Your task to perform on an android device: Turn on the flashlight Image 0: 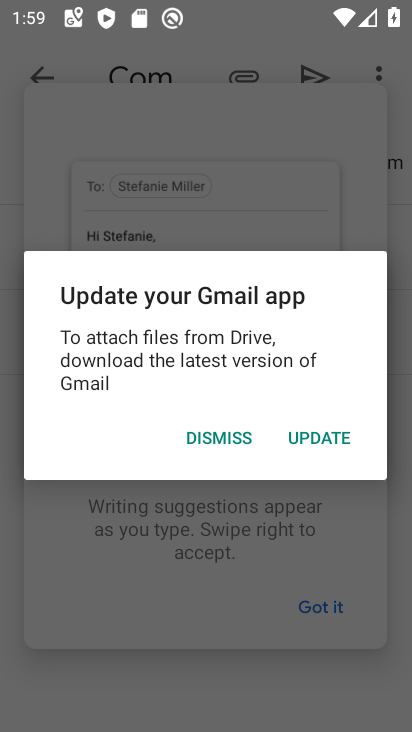
Step 0: press home button
Your task to perform on an android device: Turn on the flashlight Image 1: 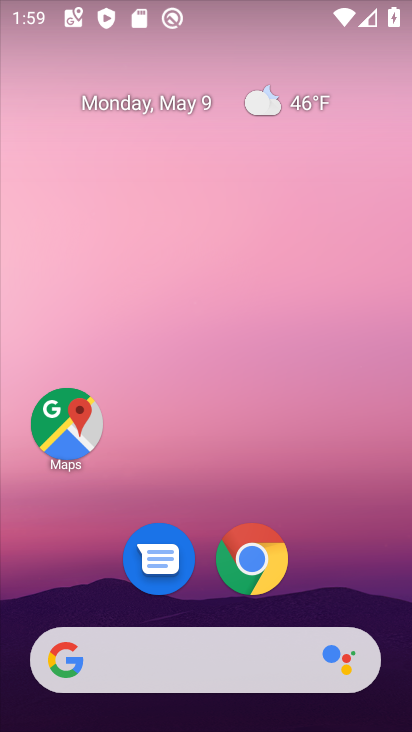
Step 1: drag from (389, 570) to (325, 166)
Your task to perform on an android device: Turn on the flashlight Image 2: 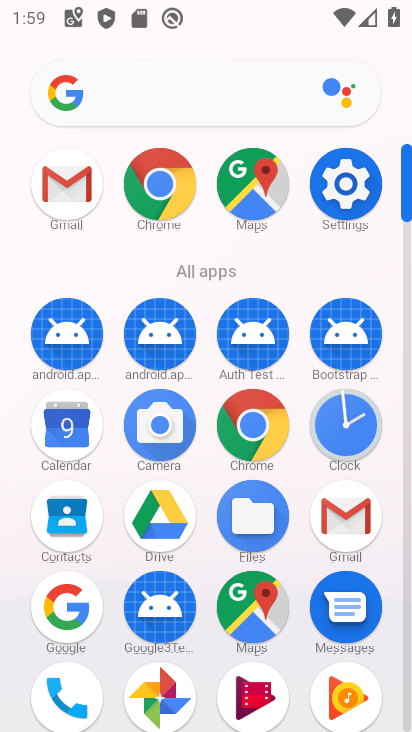
Step 2: click (342, 161)
Your task to perform on an android device: Turn on the flashlight Image 3: 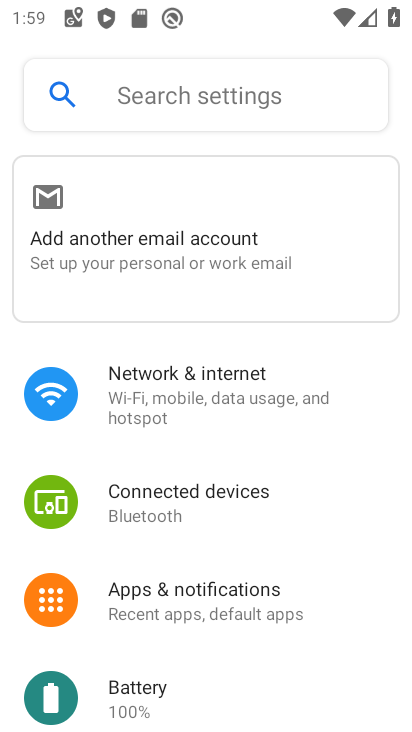
Step 3: click (180, 99)
Your task to perform on an android device: Turn on the flashlight Image 4: 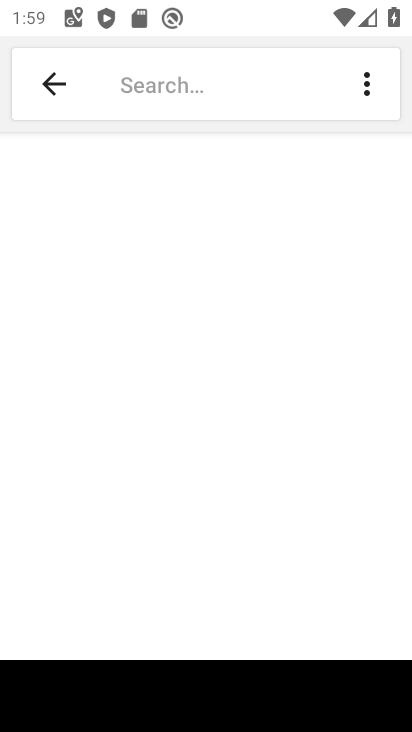
Step 4: type "flashlight"
Your task to perform on an android device: Turn on the flashlight Image 5: 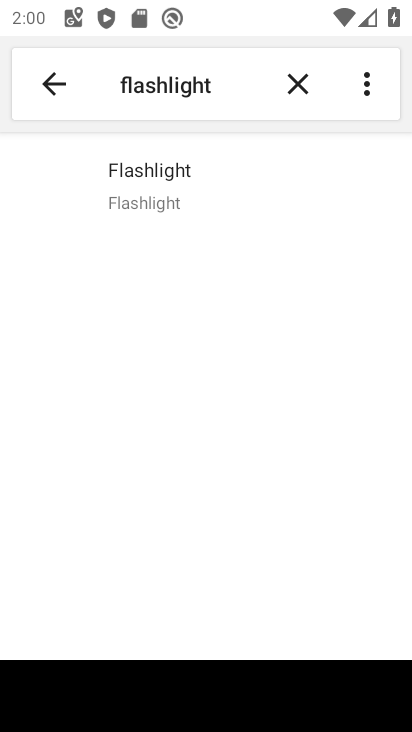
Step 5: click (167, 199)
Your task to perform on an android device: Turn on the flashlight Image 6: 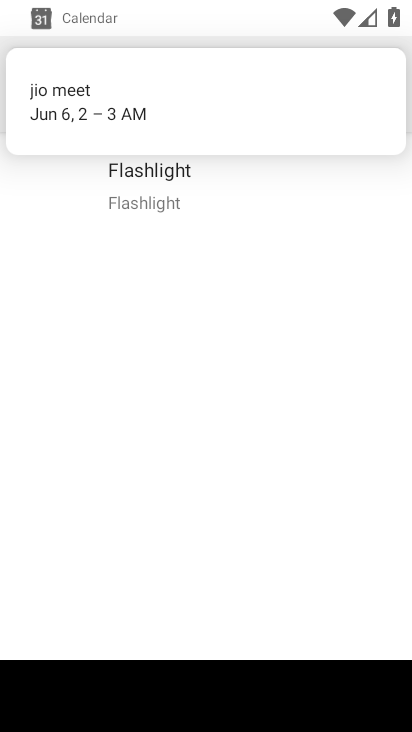
Step 6: click (170, 168)
Your task to perform on an android device: Turn on the flashlight Image 7: 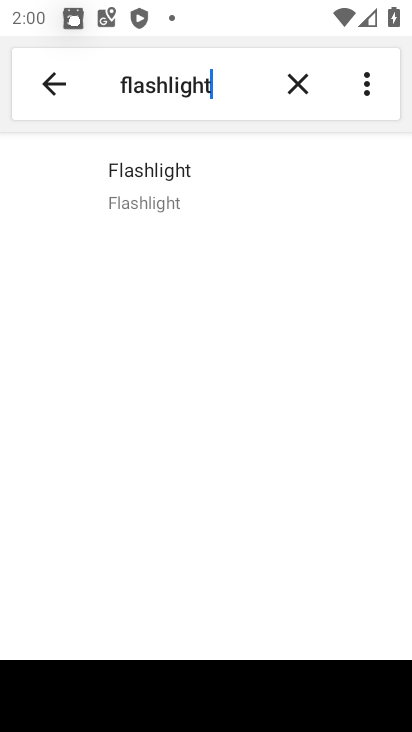
Step 7: task complete